Your task to perform on an android device: turn off javascript in the chrome app Image 0: 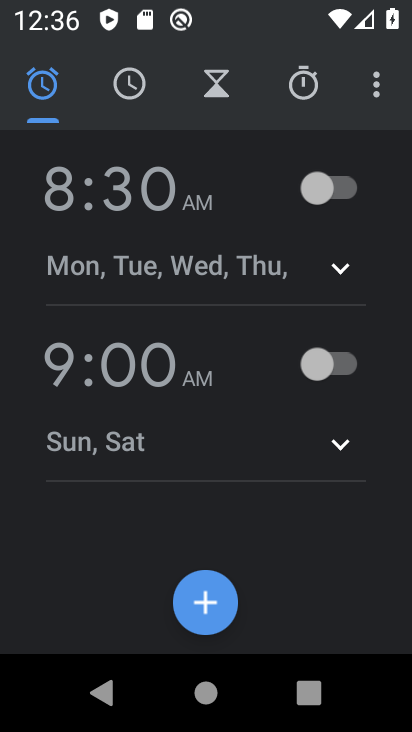
Step 0: press home button
Your task to perform on an android device: turn off javascript in the chrome app Image 1: 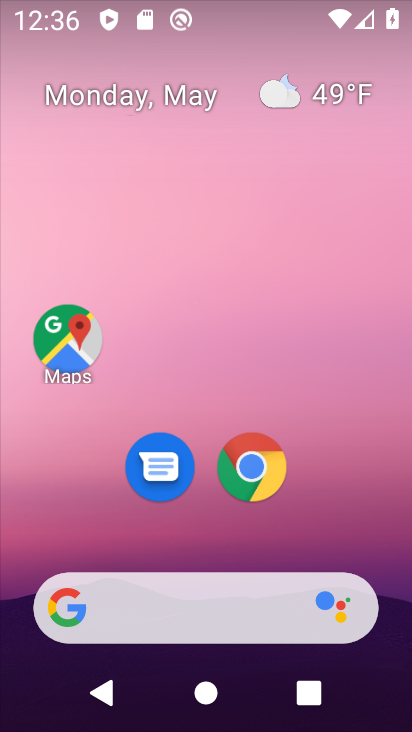
Step 1: drag from (375, 506) to (332, 98)
Your task to perform on an android device: turn off javascript in the chrome app Image 2: 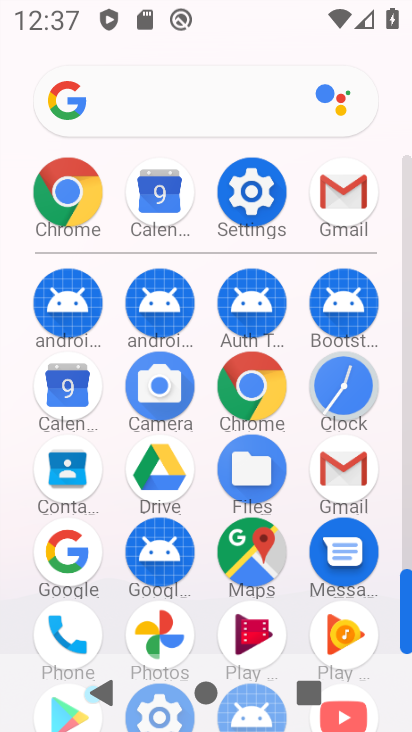
Step 2: click (269, 408)
Your task to perform on an android device: turn off javascript in the chrome app Image 3: 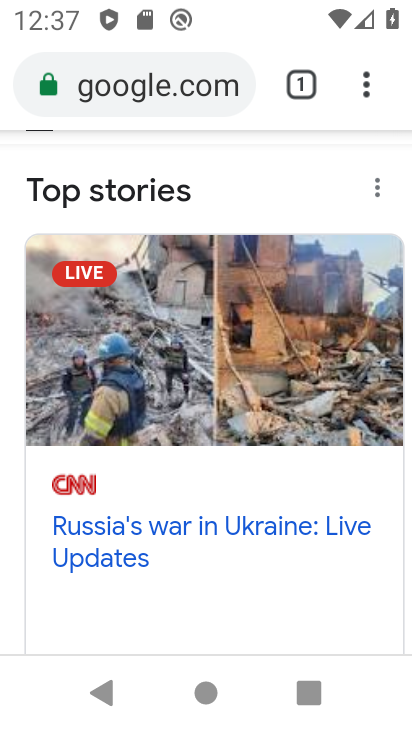
Step 3: drag from (373, 95) to (175, 523)
Your task to perform on an android device: turn off javascript in the chrome app Image 4: 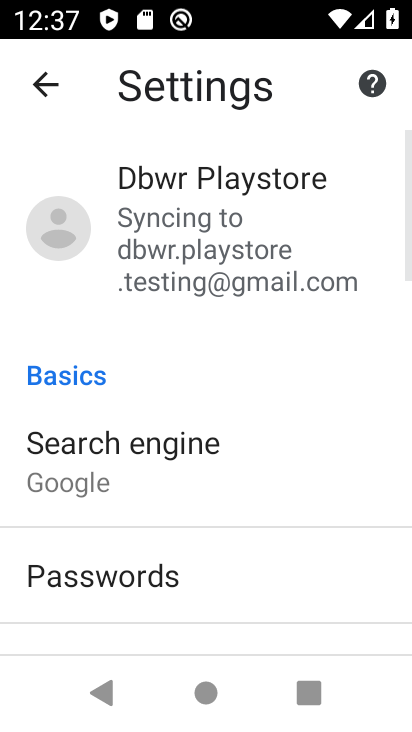
Step 4: drag from (301, 599) to (290, 295)
Your task to perform on an android device: turn off javascript in the chrome app Image 5: 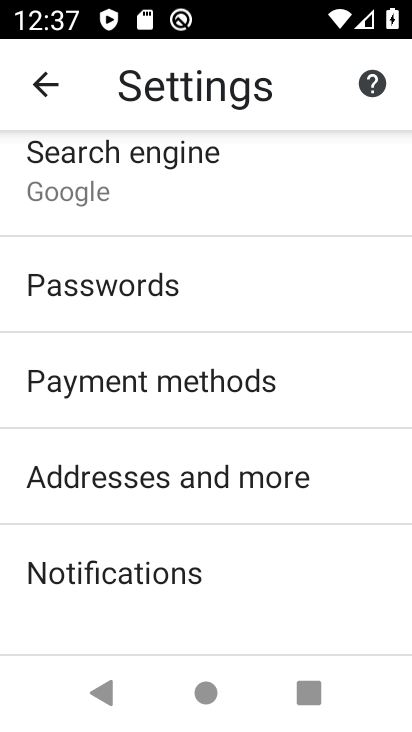
Step 5: drag from (305, 563) to (280, 295)
Your task to perform on an android device: turn off javascript in the chrome app Image 6: 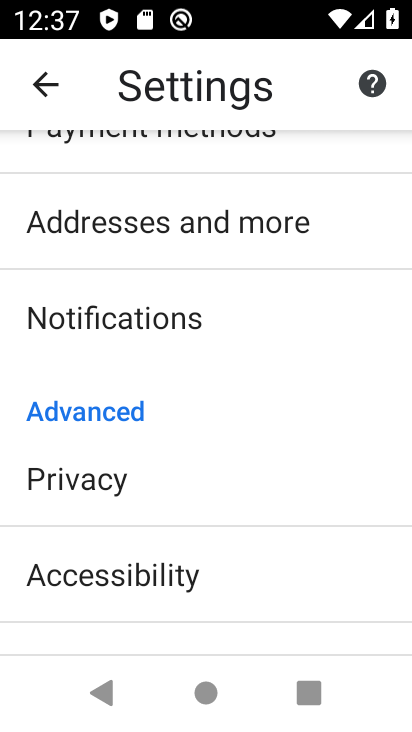
Step 6: drag from (264, 566) to (265, 291)
Your task to perform on an android device: turn off javascript in the chrome app Image 7: 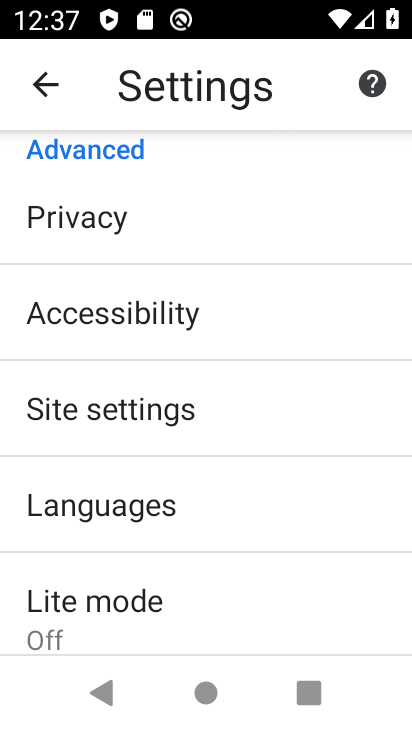
Step 7: click (206, 418)
Your task to perform on an android device: turn off javascript in the chrome app Image 8: 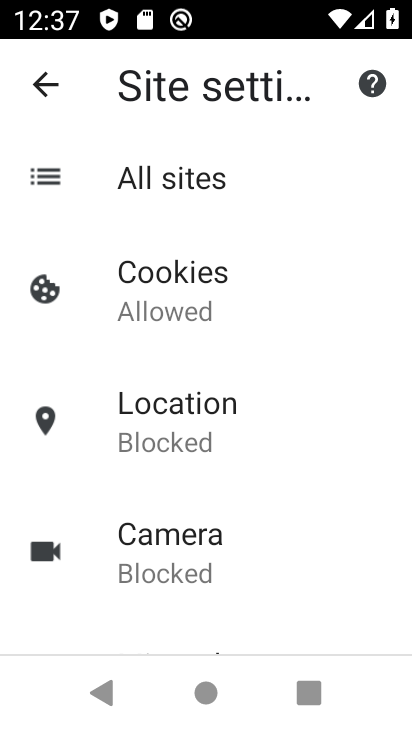
Step 8: drag from (250, 521) to (246, 362)
Your task to perform on an android device: turn off javascript in the chrome app Image 9: 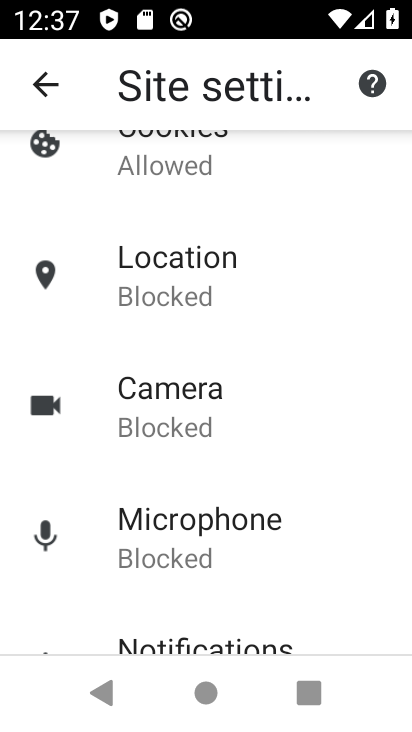
Step 9: drag from (252, 576) to (246, 289)
Your task to perform on an android device: turn off javascript in the chrome app Image 10: 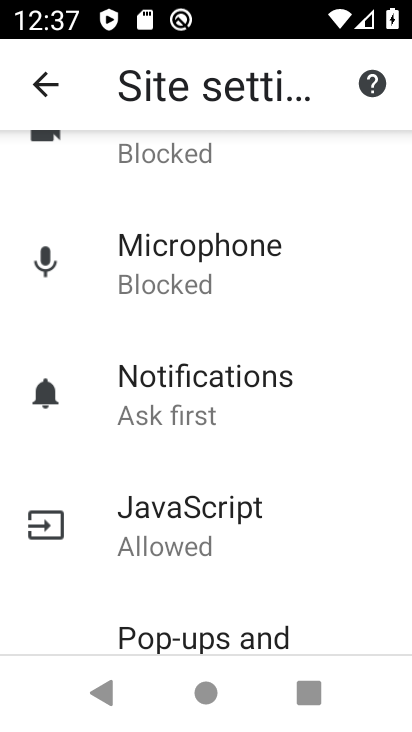
Step 10: click (237, 523)
Your task to perform on an android device: turn off javascript in the chrome app Image 11: 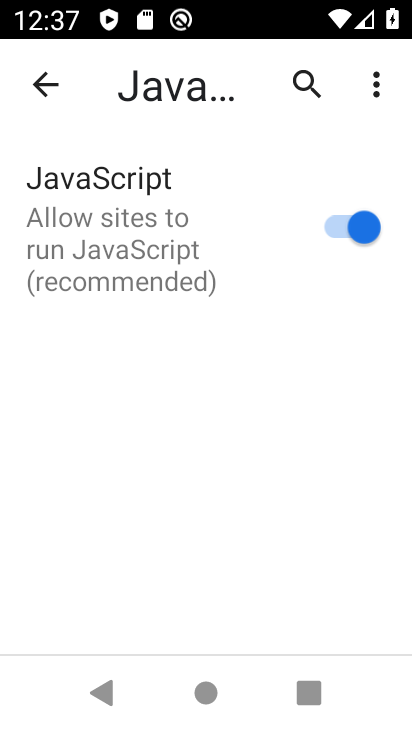
Step 11: click (337, 222)
Your task to perform on an android device: turn off javascript in the chrome app Image 12: 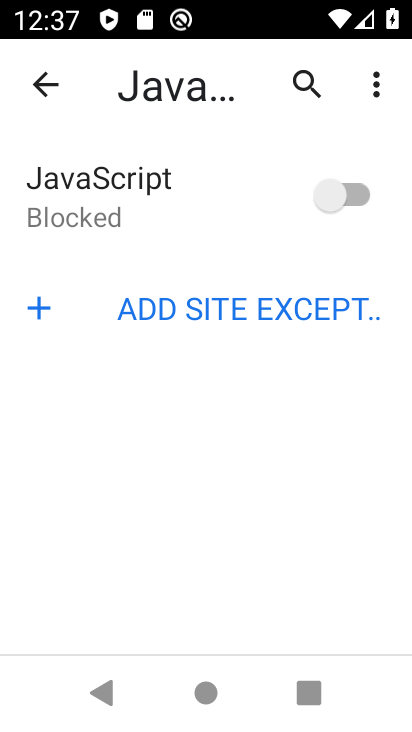
Step 12: task complete